Your task to perform on an android device: Open CNN.com Image 0: 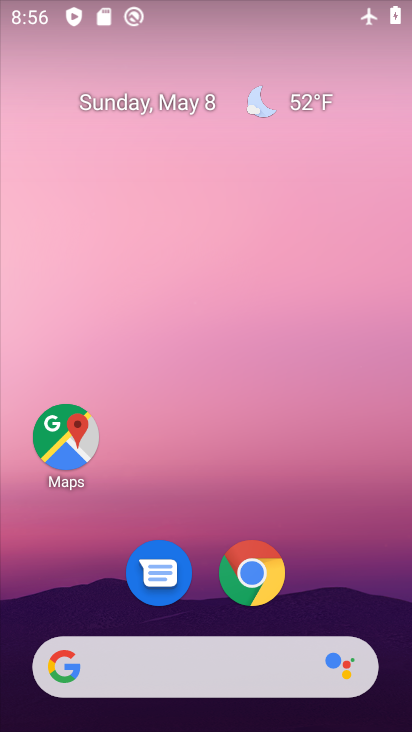
Step 0: click (248, 572)
Your task to perform on an android device: Open CNN.com Image 1: 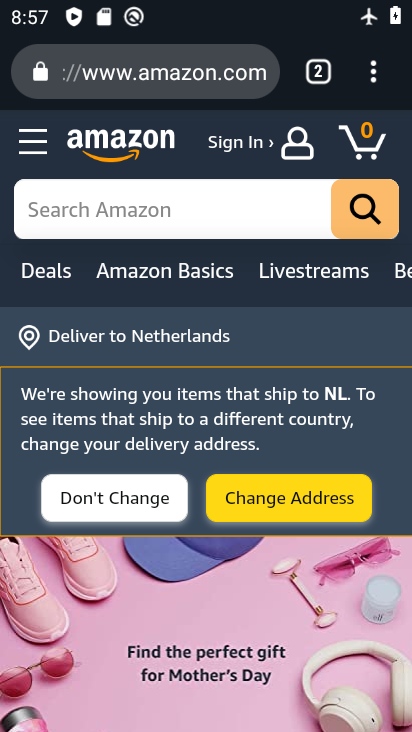
Step 1: drag from (374, 78) to (128, 130)
Your task to perform on an android device: Open CNN.com Image 2: 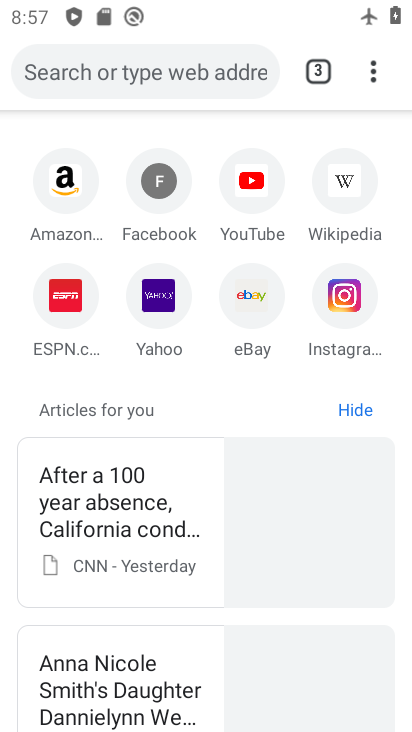
Step 2: click (215, 67)
Your task to perform on an android device: Open CNN.com Image 3: 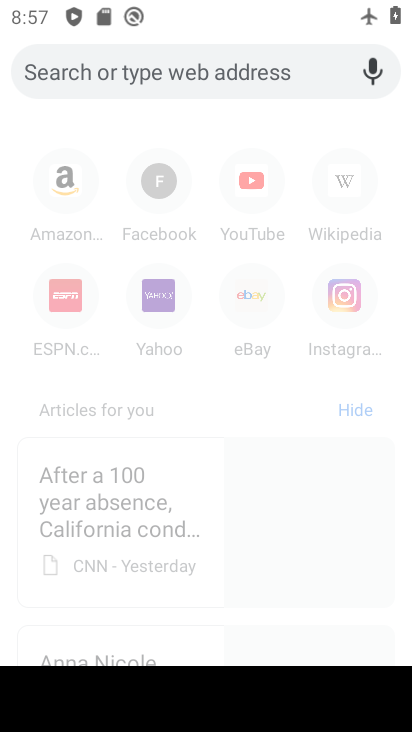
Step 3: type "CNN.com"
Your task to perform on an android device: Open CNN.com Image 4: 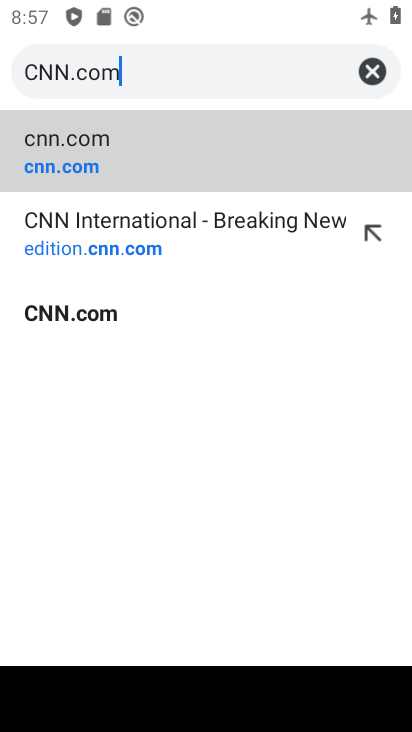
Step 4: click (53, 149)
Your task to perform on an android device: Open CNN.com Image 5: 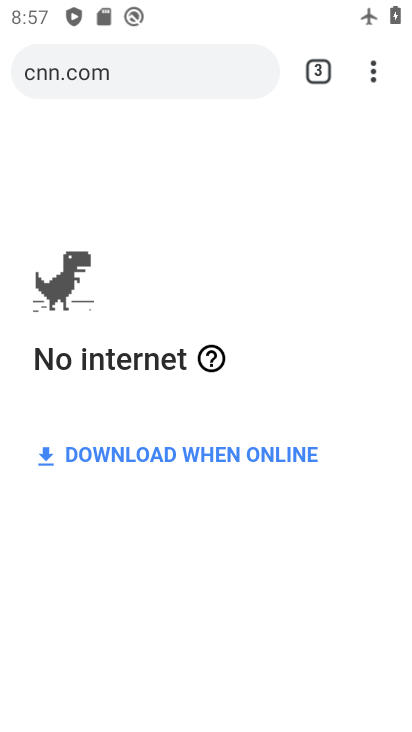
Step 5: task complete